Your task to perform on an android device: open a bookmark in the chrome app Image 0: 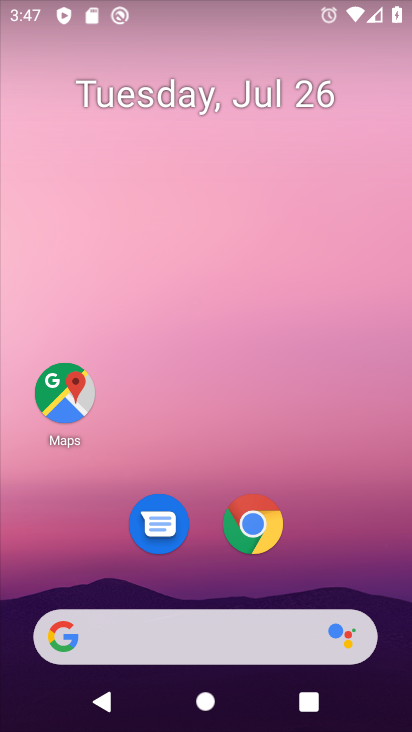
Step 0: click (202, 644)
Your task to perform on an android device: open a bookmark in the chrome app Image 1: 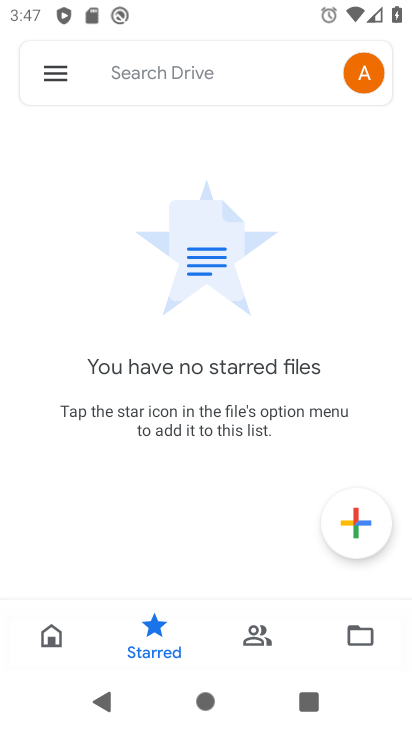
Step 1: press home button
Your task to perform on an android device: open a bookmark in the chrome app Image 2: 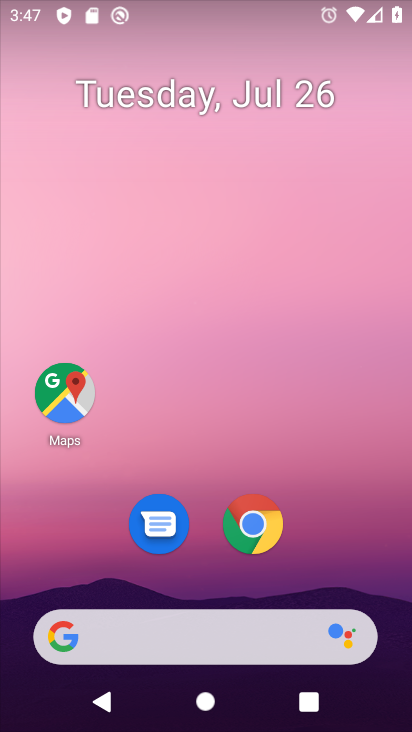
Step 2: click (270, 526)
Your task to perform on an android device: open a bookmark in the chrome app Image 3: 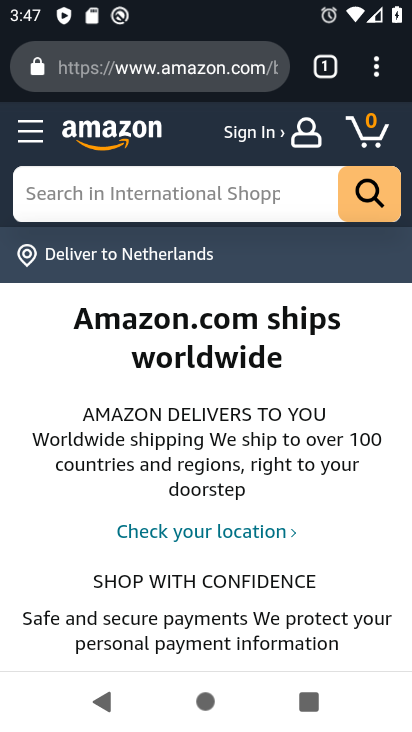
Step 3: click (376, 72)
Your task to perform on an android device: open a bookmark in the chrome app Image 4: 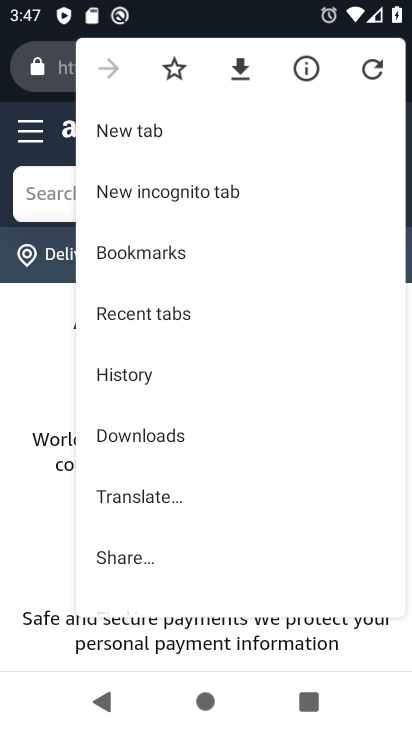
Step 4: click (177, 253)
Your task to perform on an android device: open a bookmark in the chrome app Image 5: 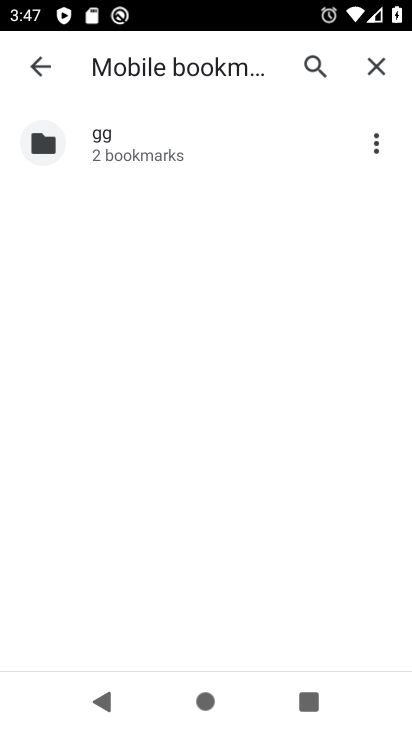
Step 5: click (183, 148)
Your task to perform on an android device: open a bookmark in the chrome app Image 6: 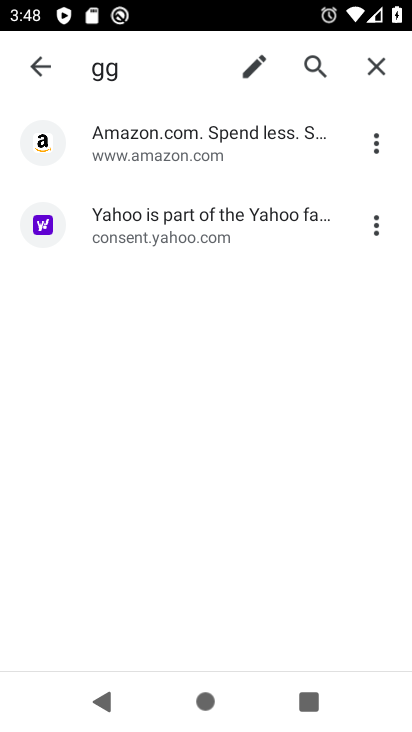
Step 6: click (218, 218)
Your task to perform on an android device: open a bookmark in the chrome app Image 7: 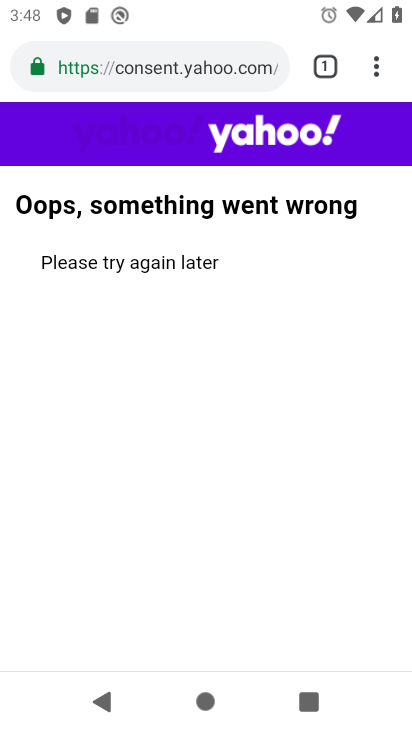
Step 7: click (195, 265)
Your task to perform on an android device: open a bookmark in the chrome app Image 8: 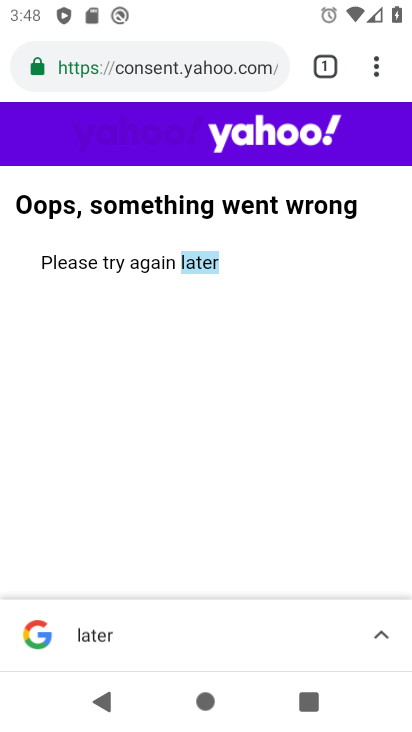
Step 8: click (171, 316)
Your task to perform on an android device: open a bookmark in the chrome app Image 9: 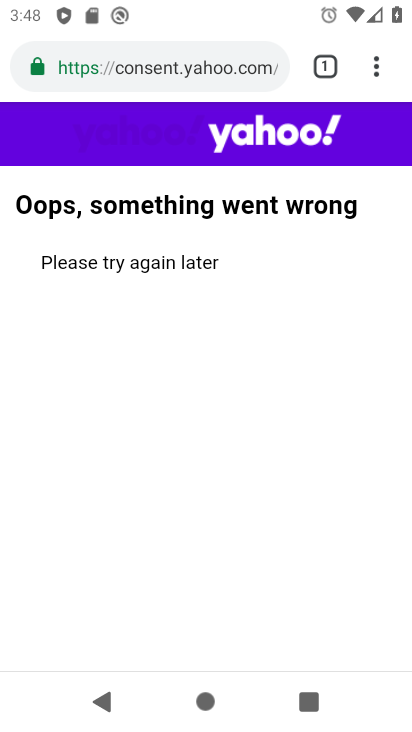
Step 9: click (375, 70)
Your task to perform on an android device: open a bookmark in the chrome app Image 10: 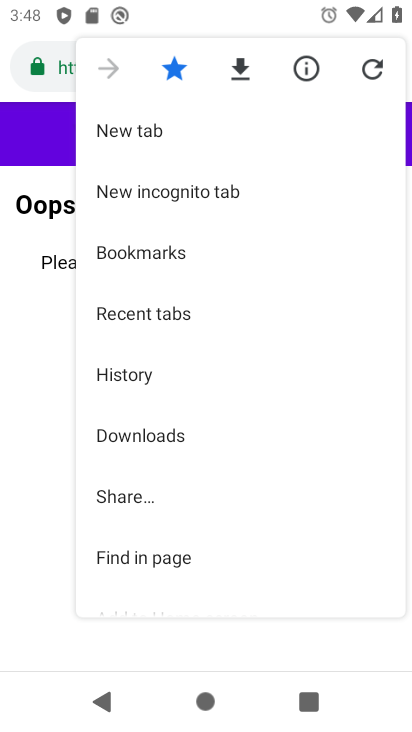
Step 10: click (367, 65)
Your task to perform on an android device: open a bookmark in the chrome app Image 11: 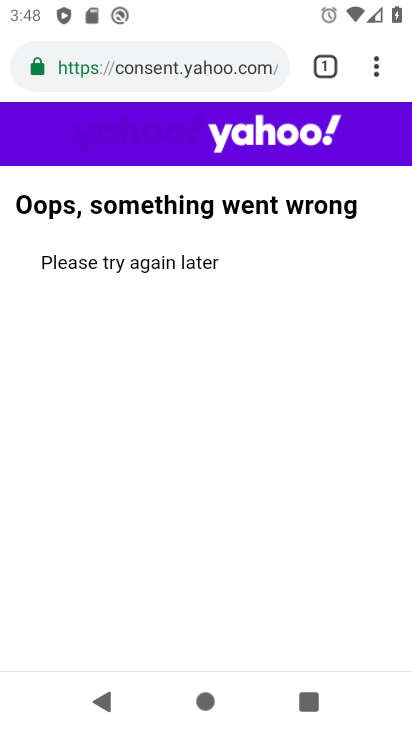
Step 11: task complete